Your task to perform on an android device: Go to Android settings Image 0: 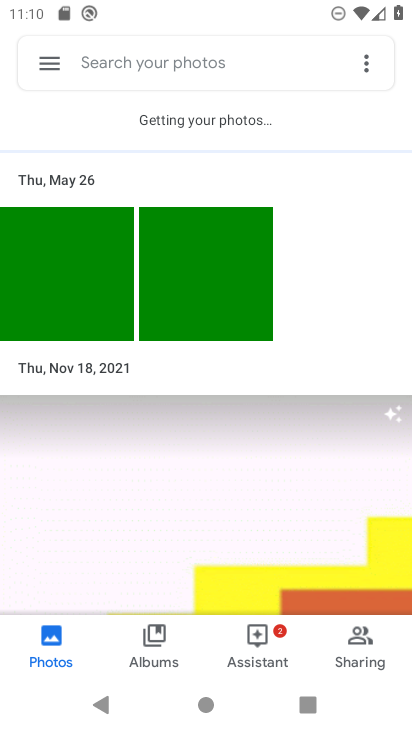
Step 0: press home button
Your task to perform on an android device: Go to Android settings Image 1: 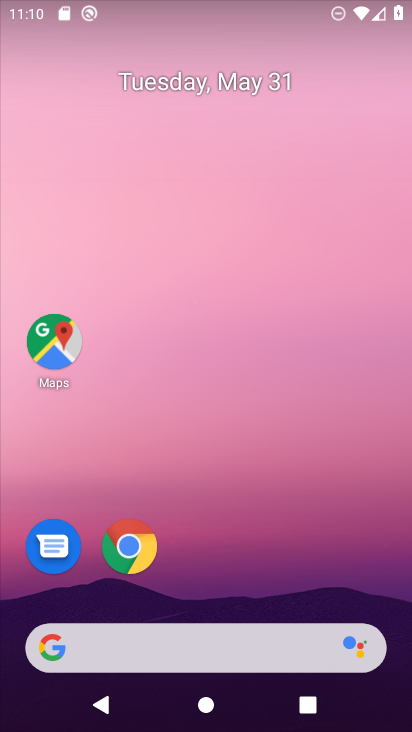
Step 1: drag from (233, 480) to (286, 9)
Your task to perform on an android device: Go to Android settings Image 2: 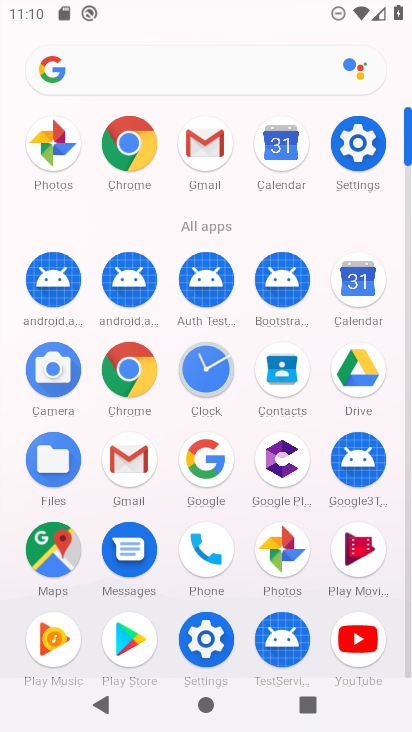
Step 2: click (352, 157)
Your task to perform on an android device: Go to Android settings Image 3: 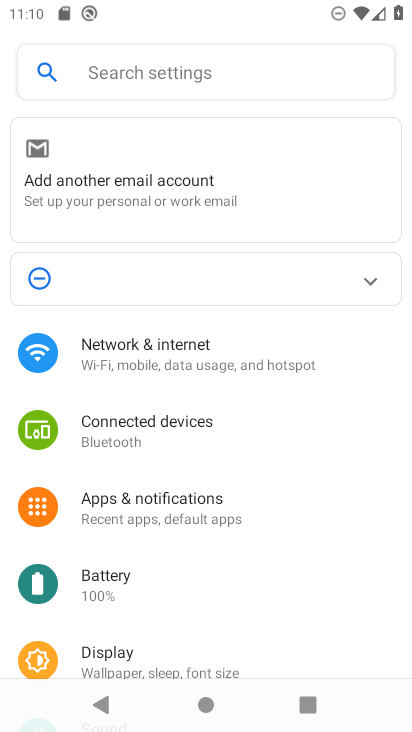
Step 3: drag from (225, 644) to (282, 7)
Your task to perform on an android device: Go to Android settings Image 4: 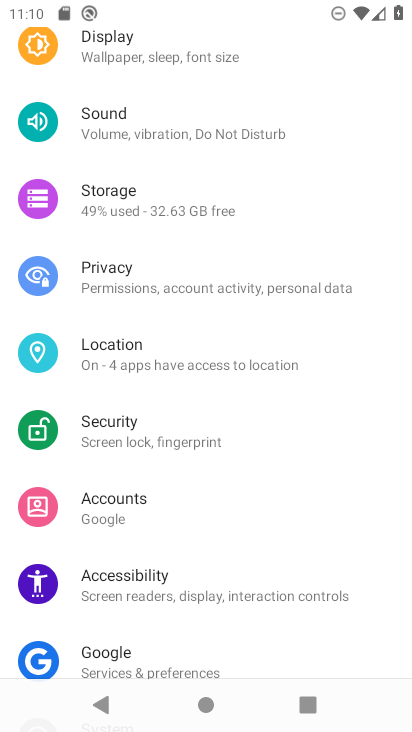
Step 4: drag from (277, 269) to (222, 34)
Your task to perform on an android device: Go to Android settings Image 5: 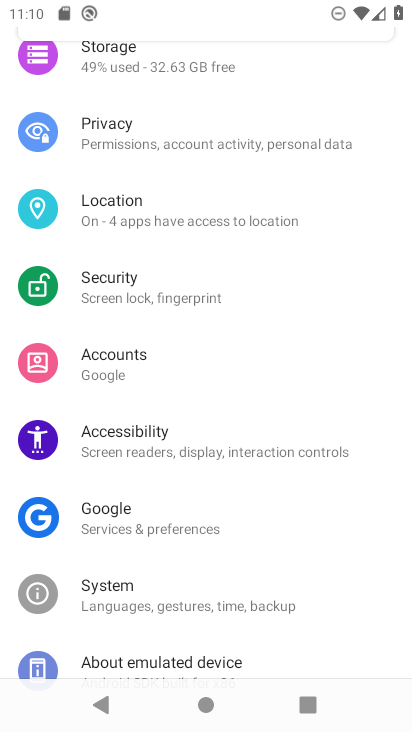
Step 5: drag from (202, 636) to (266, 218)
Your task to perform on an android device: Go to Android settings Image 6: 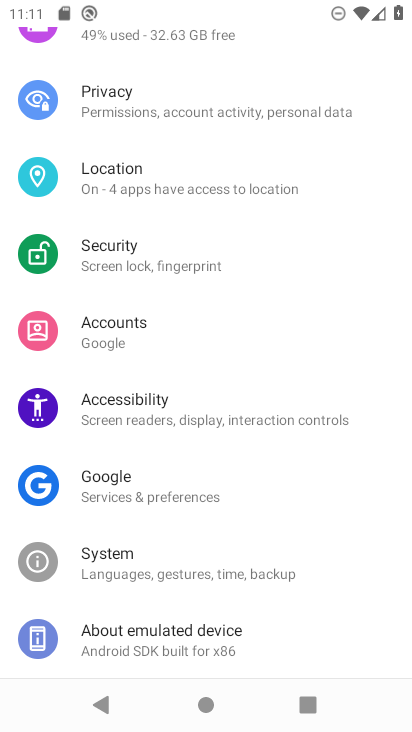
Step 6: click (253, 656)
Your task to perform on an android device: Go to Android settings Image 7: 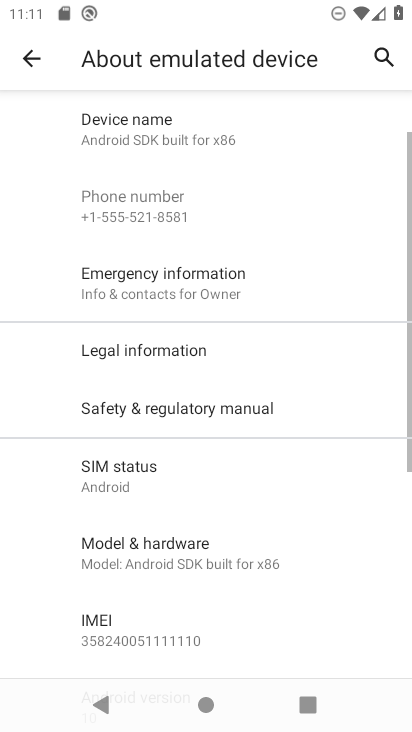
Step 7: task complete